Your task to perform on an android device: Show me popular videos on Youtube Image 0: 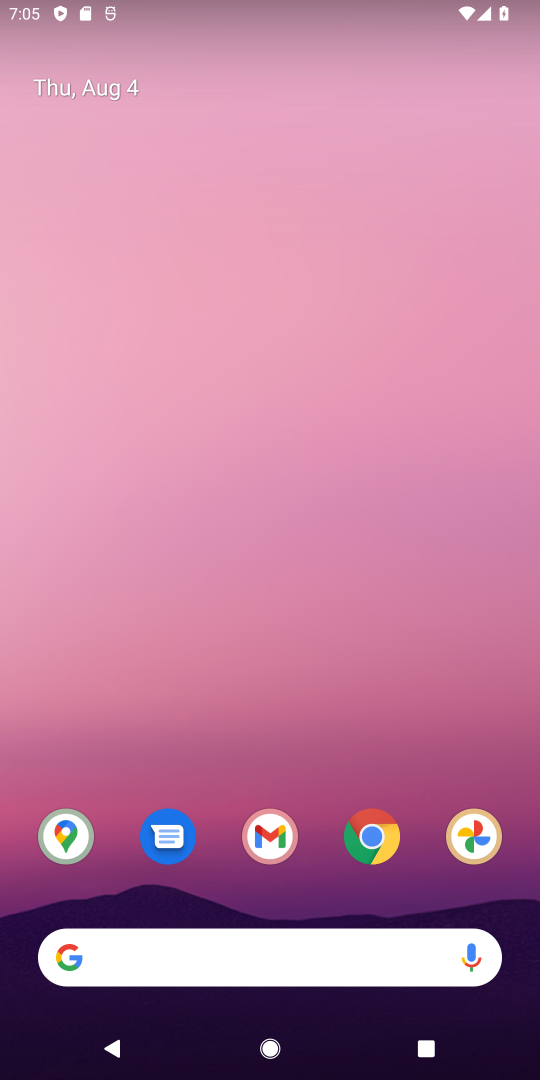
Step 0: drag from (195, 819) to (355, 17)
Your task to perform on an android device: Show me popular videos on Youtube Image 1: 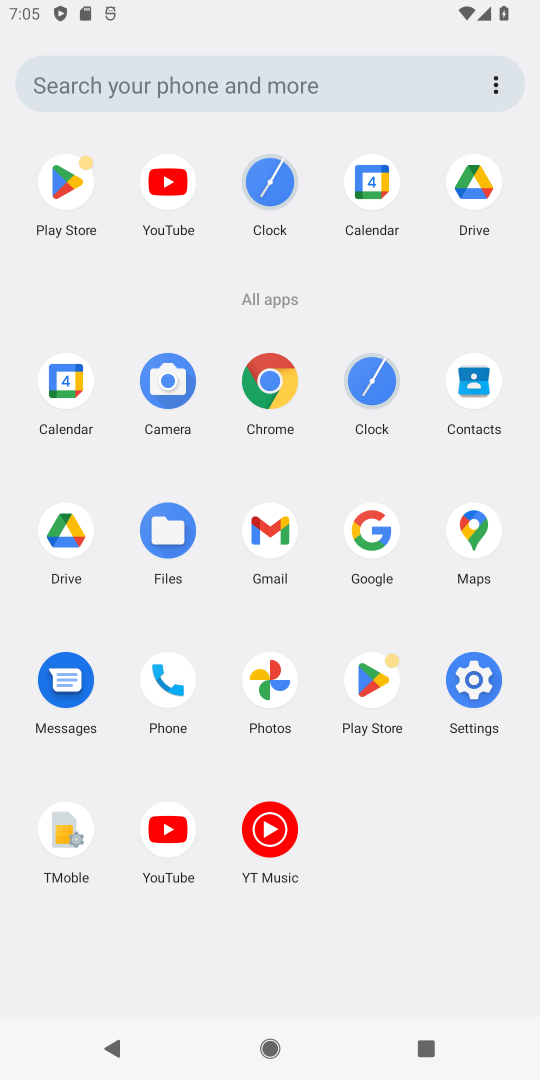
Step 1: click (171, 835)
Your task to perform on an android device: Show me popular videos on Youtube Image 2: 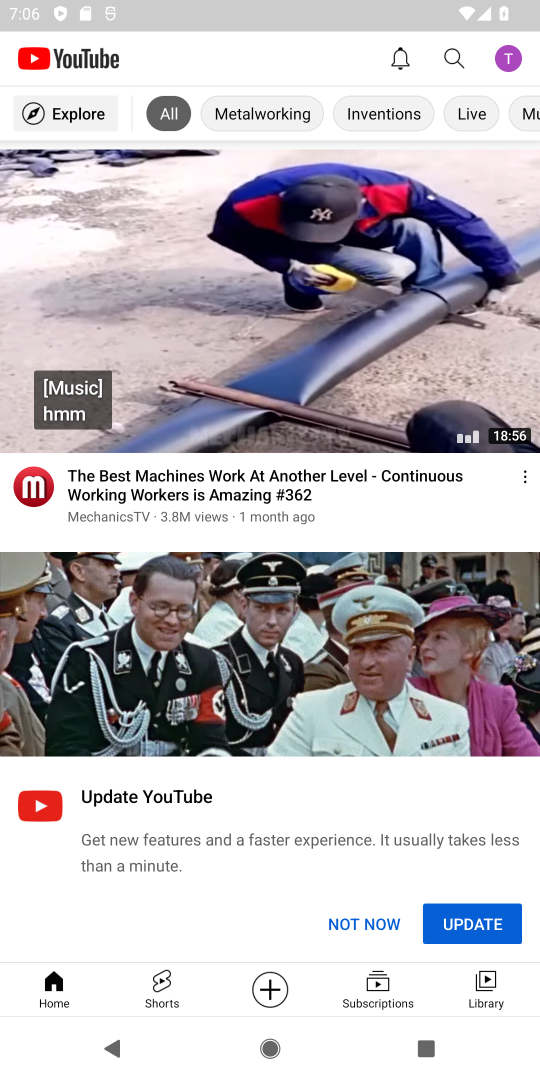
Step 2: click (78, 115)
Your task to perform on an android device: Show me popular videos on Youtube Image 3: 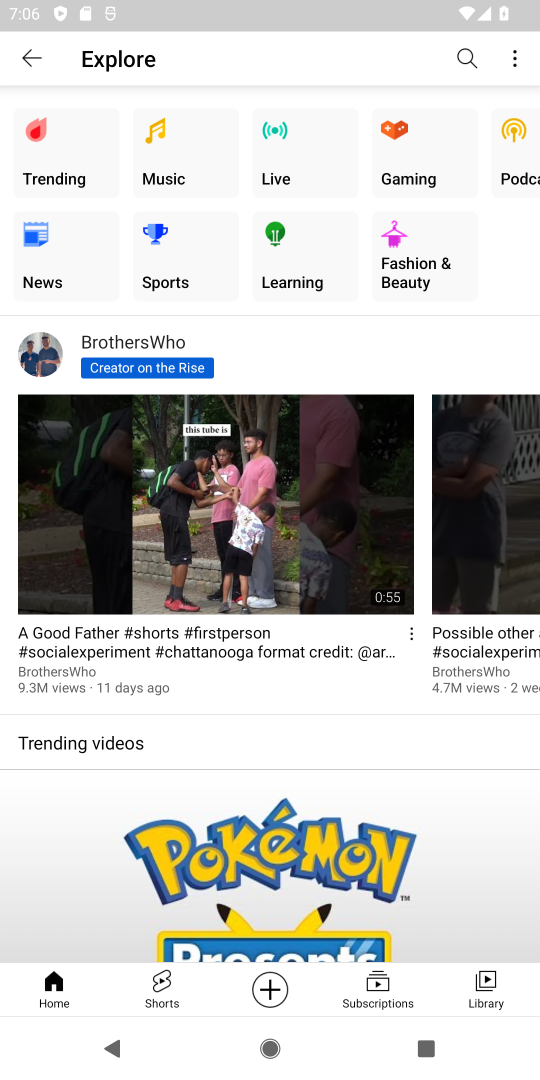
Step 3: click (41, 133)
Your task to perform on an android device: Show me popular videos on Youtube Image 4: 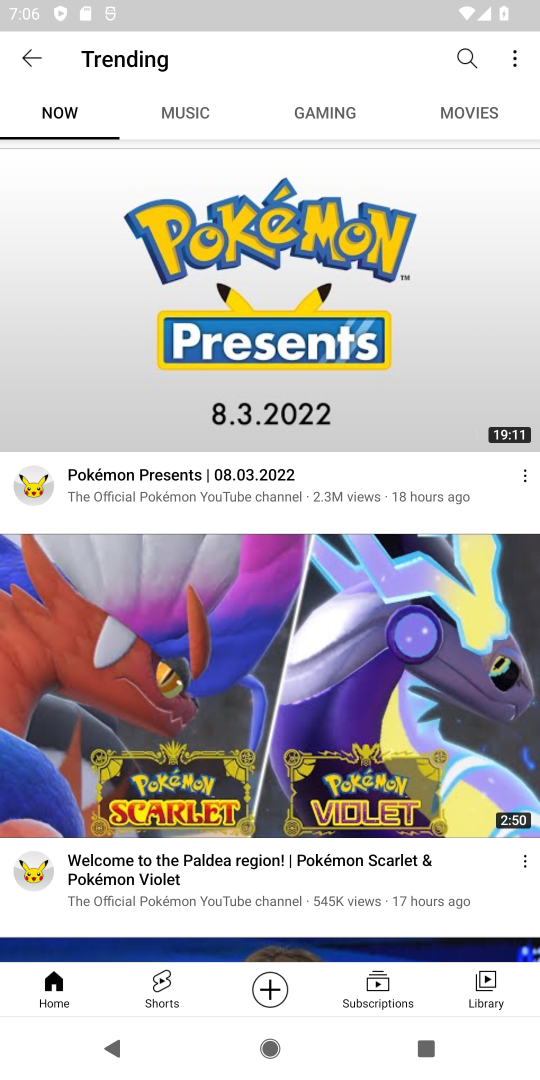
Step 4: task complete